Your task to perform on an android device: Turn on the flashlight Image 0: 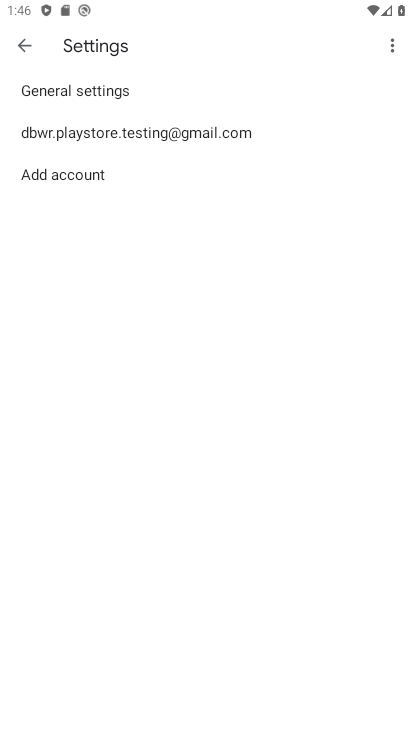
Step 0: press back button
Your task to perform on an android device: Turn on the flashlight Image 1: 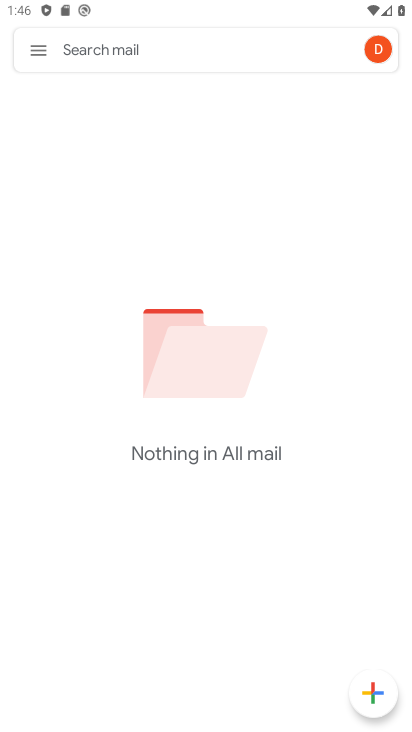
Step 1: press back button
Your task to perform on an android device: Turn on the flashlight Image 2: 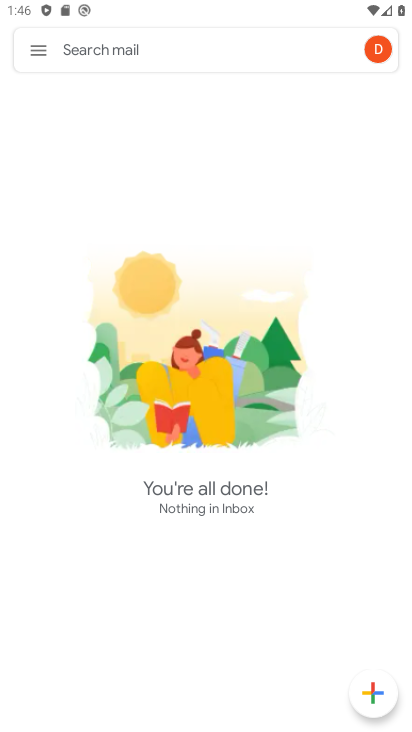
Step 2: press back button
Your task to perform on an android device: Turn on the flashlight Image 3: 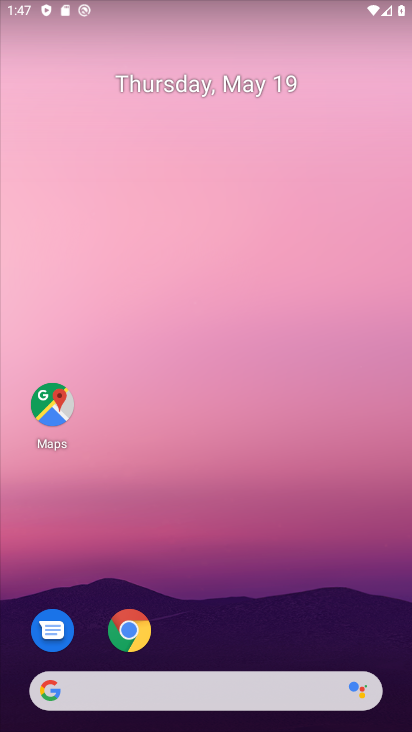
Step 3: drag from (295, 528) to (169, 7)
Your task to perform on an android device: Turn on the flashlight Image 4: 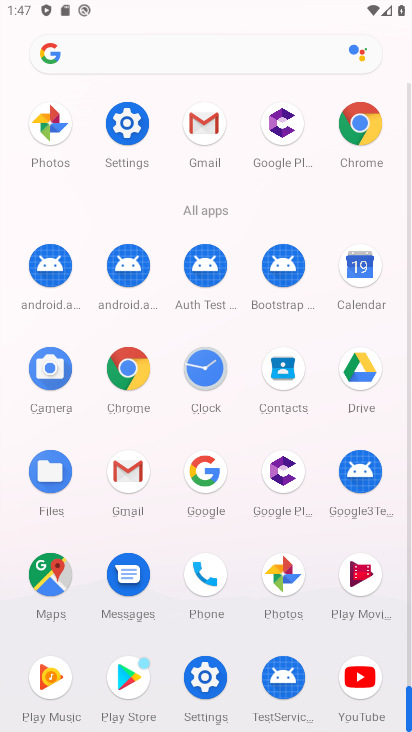
Step 4: drag from (14, 486) to (14, 227)
Your task to perform on an android device: Turn on the flashlight Image 5: 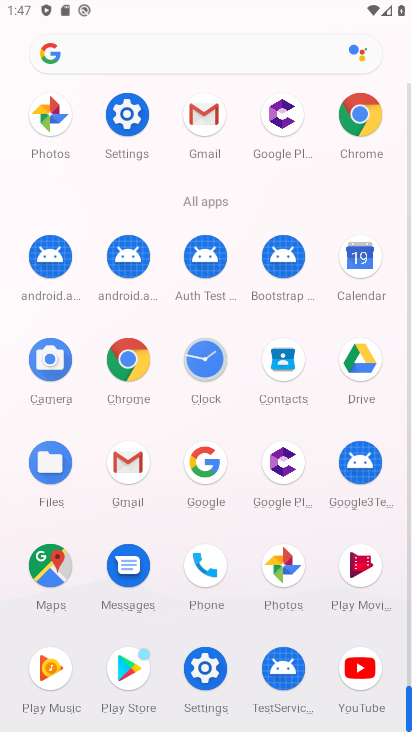
Step 5: click (123, 113)
Your task to perform on an android device: Turn on the flashlight Image 6: 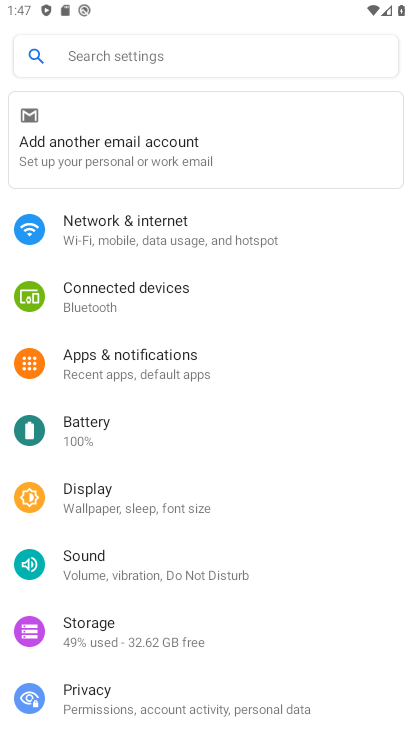
Step 6: click (165, 230)
Your task to perform on an android device: Turn on the flashlight Image 7: 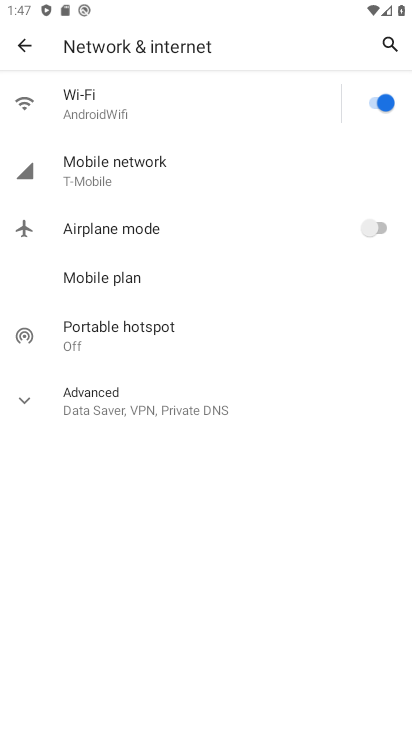
Step 7: click (37, 400)
Your task to perform on an android device: Turn on the flashlight Image 8: 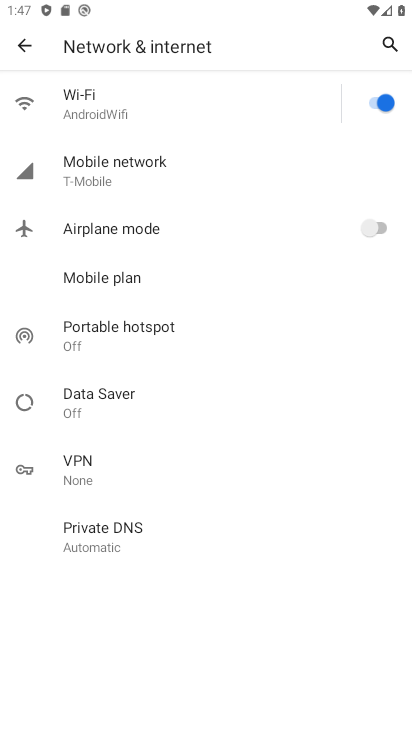
Step 8: task complete